Your task to perform on an android device: Clear the shopping cart on bestbuy.com. Add "macbook pro" to the cart on bestbuy.com, then select checkout. Image 0: 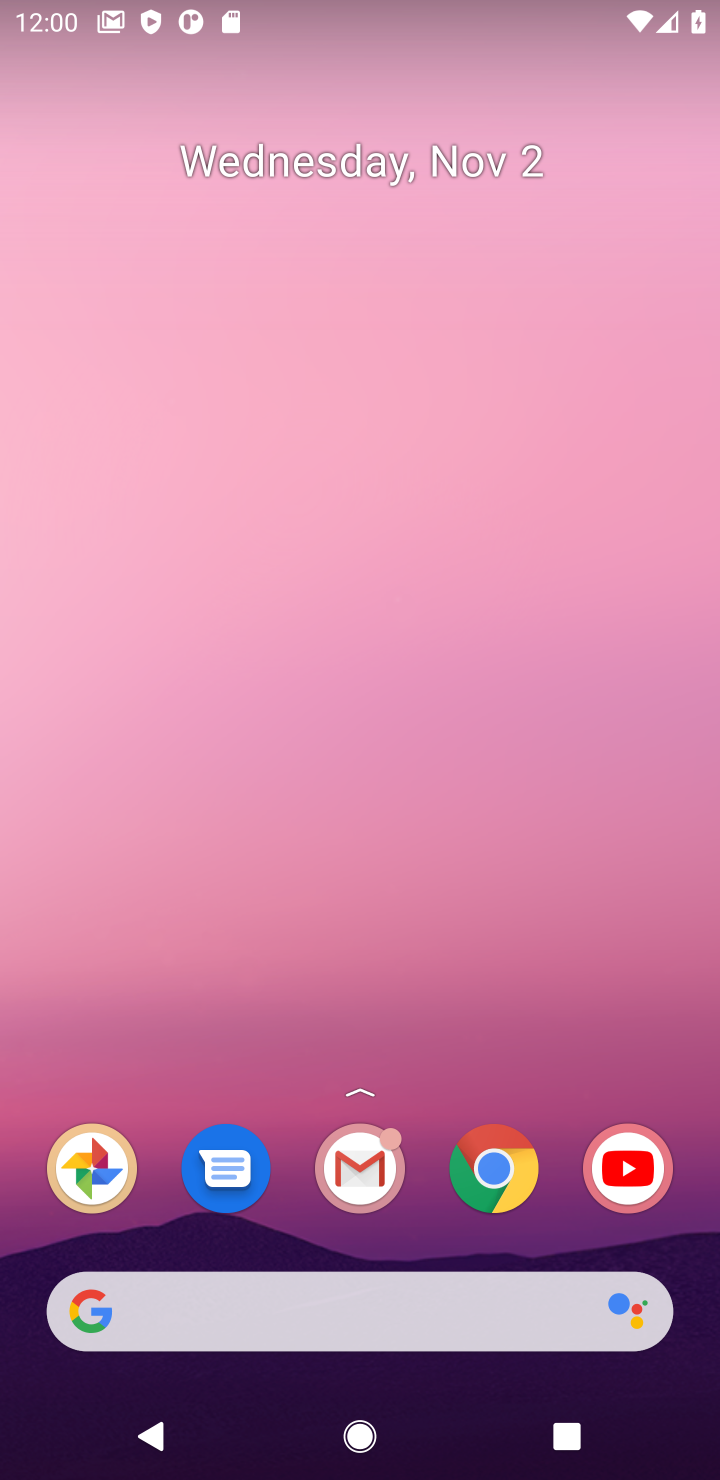
Step 0: click (490, 1166)
Your task to perform on an android device: Clear the shopping cart on bestbuy.com. Add "macbook pro" to the cart on bestbuy.com, then select checkout. Image 1: 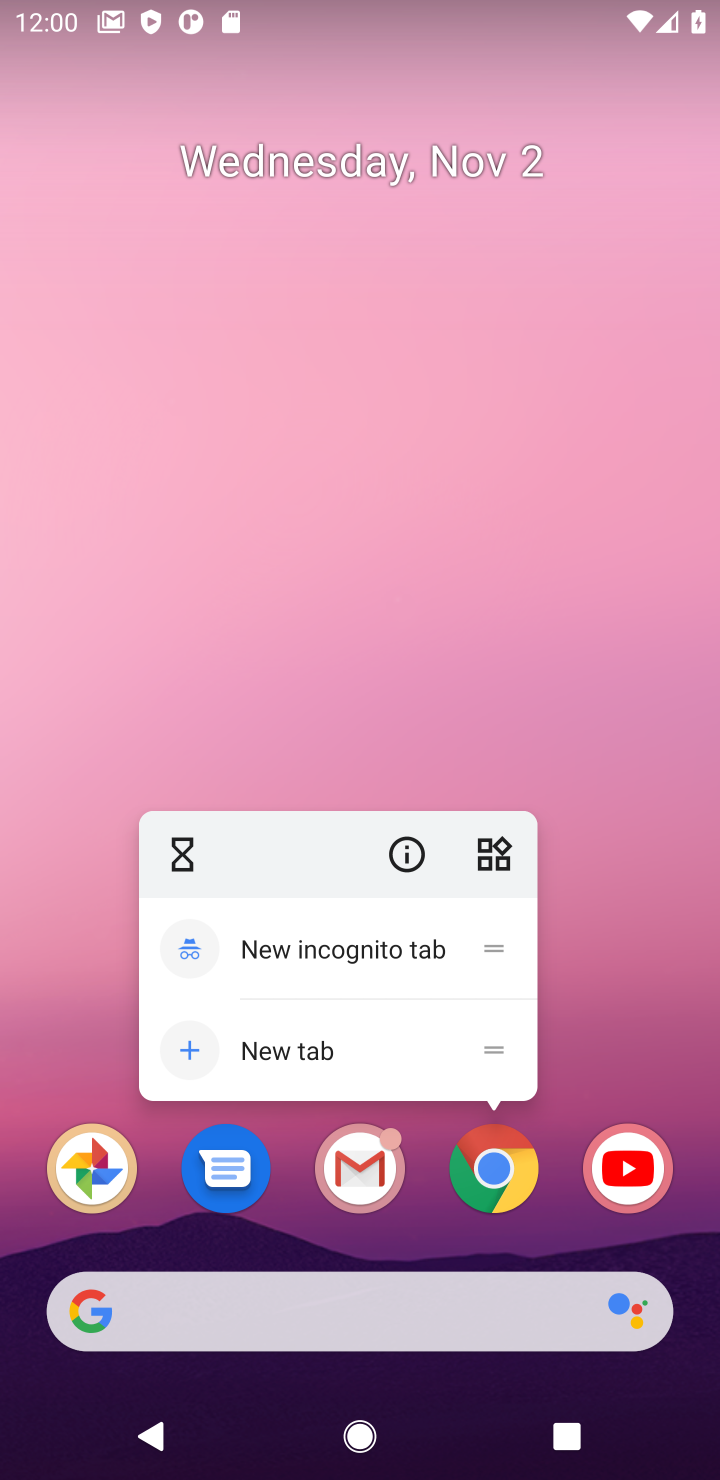
Step 1: click (685, 959)
Your task to perform on an android device: Clear the shopping cart on bestbuy.com. Add "macbook pro" to the cart on bestbuy.com, then select checkout. Image 2: 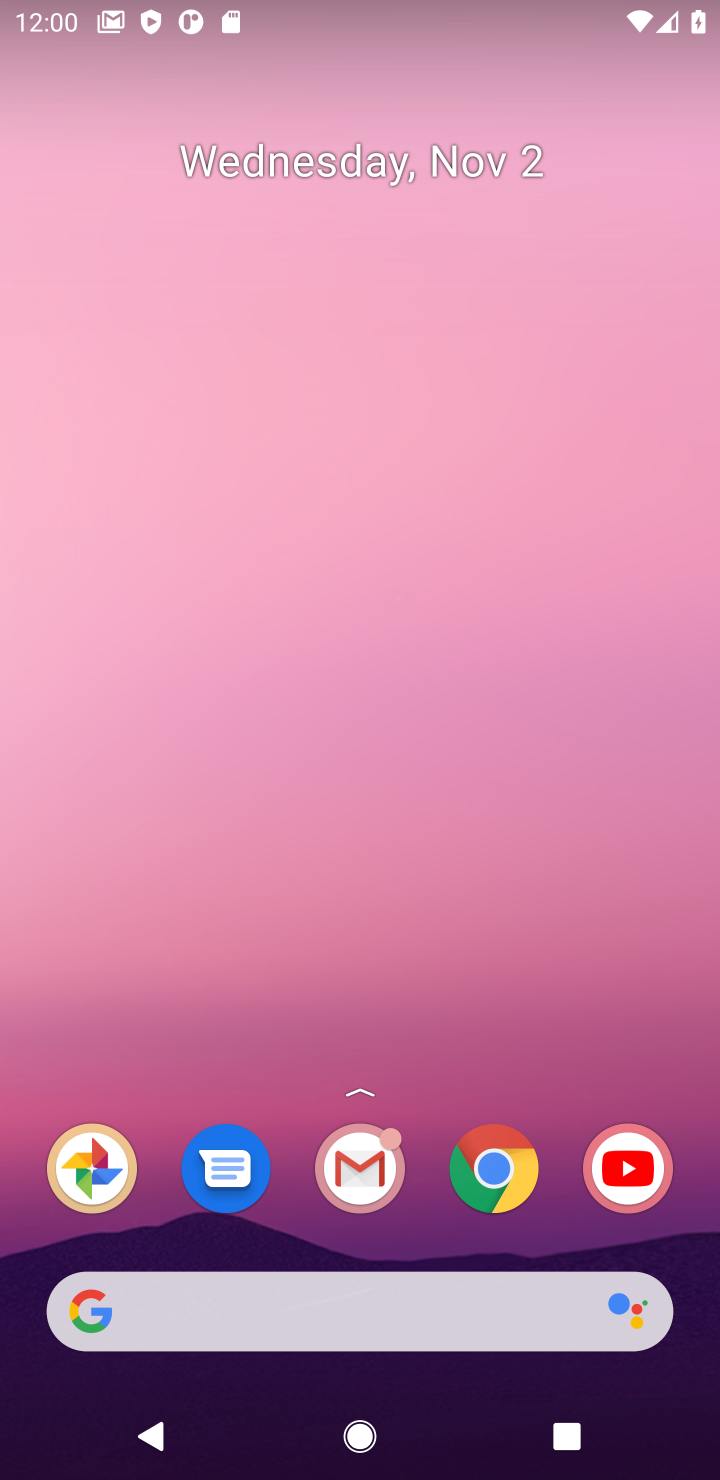
Step 2: click (502, 1170)
Your task to perform on an android device: Clear the shopping cart on bestbuy.com. Add "macbook pro" to the cart on bestbuy.com, then select checkout. Image 3: 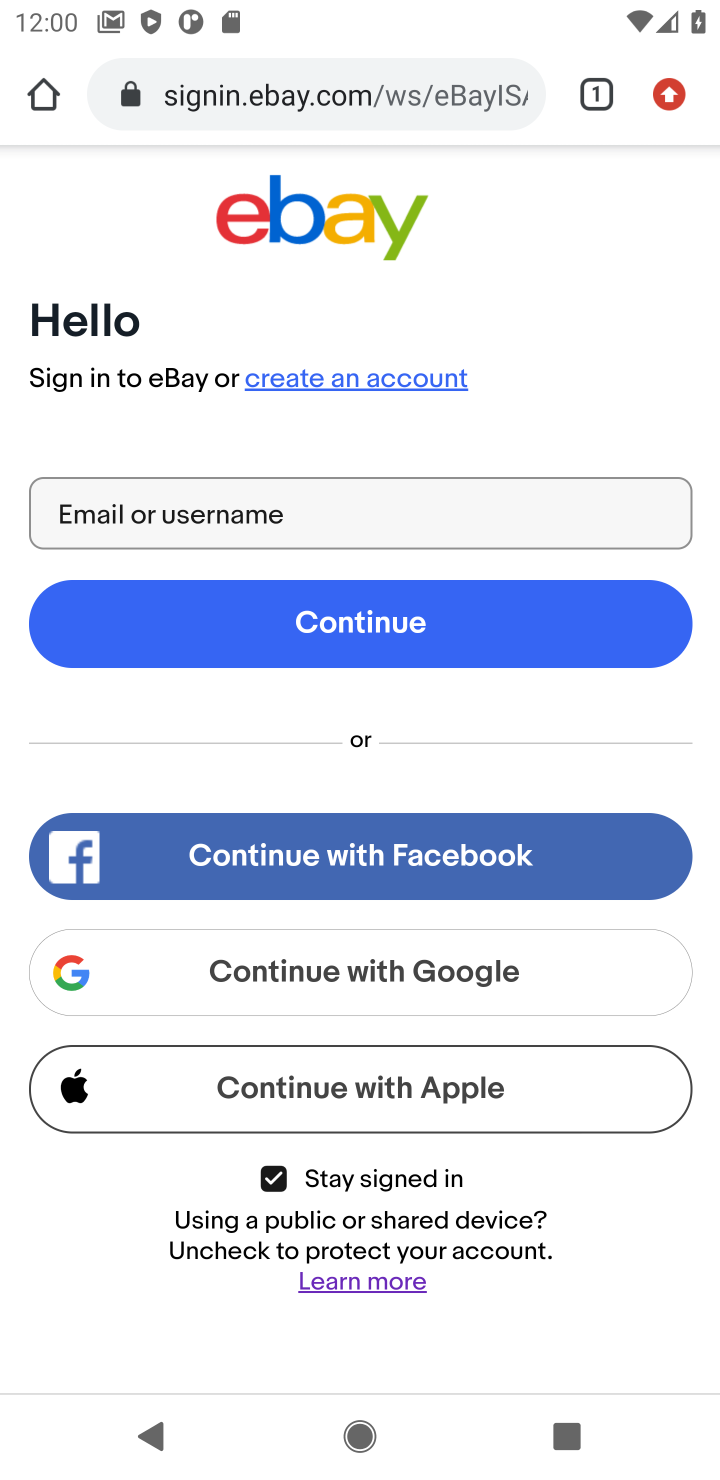
Step 3: click (443, 78)
Your task to perform on an android device: Clear the shopping cart on bestbuy.com. Add "macbook pro" to the cart on bestbuy.com, then select checkout. Image 4: 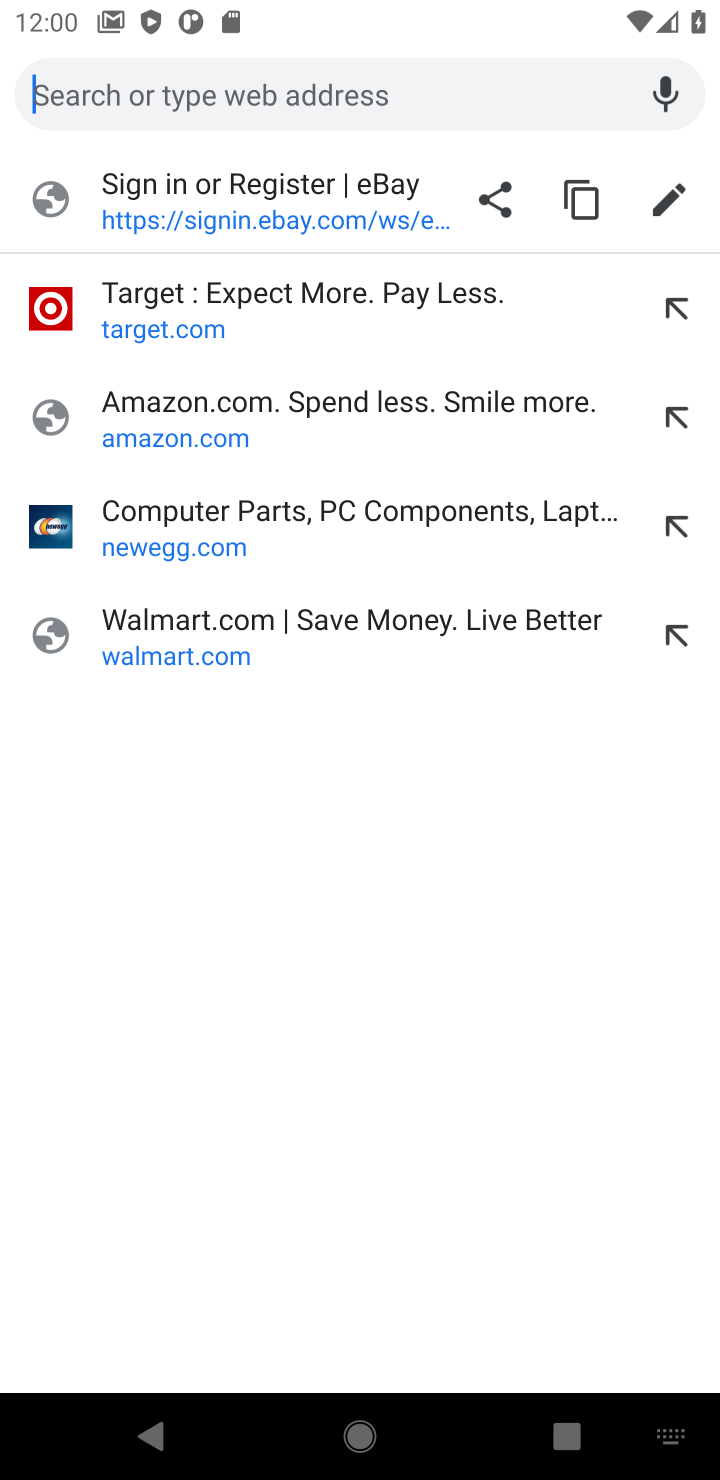
Step 4: press enter
Your task to perform on an android device: Clear the shopping cart on bestbuy.com. Add "macbook pro" to the cart on bestbuy.com, then select checkout. Image 5: 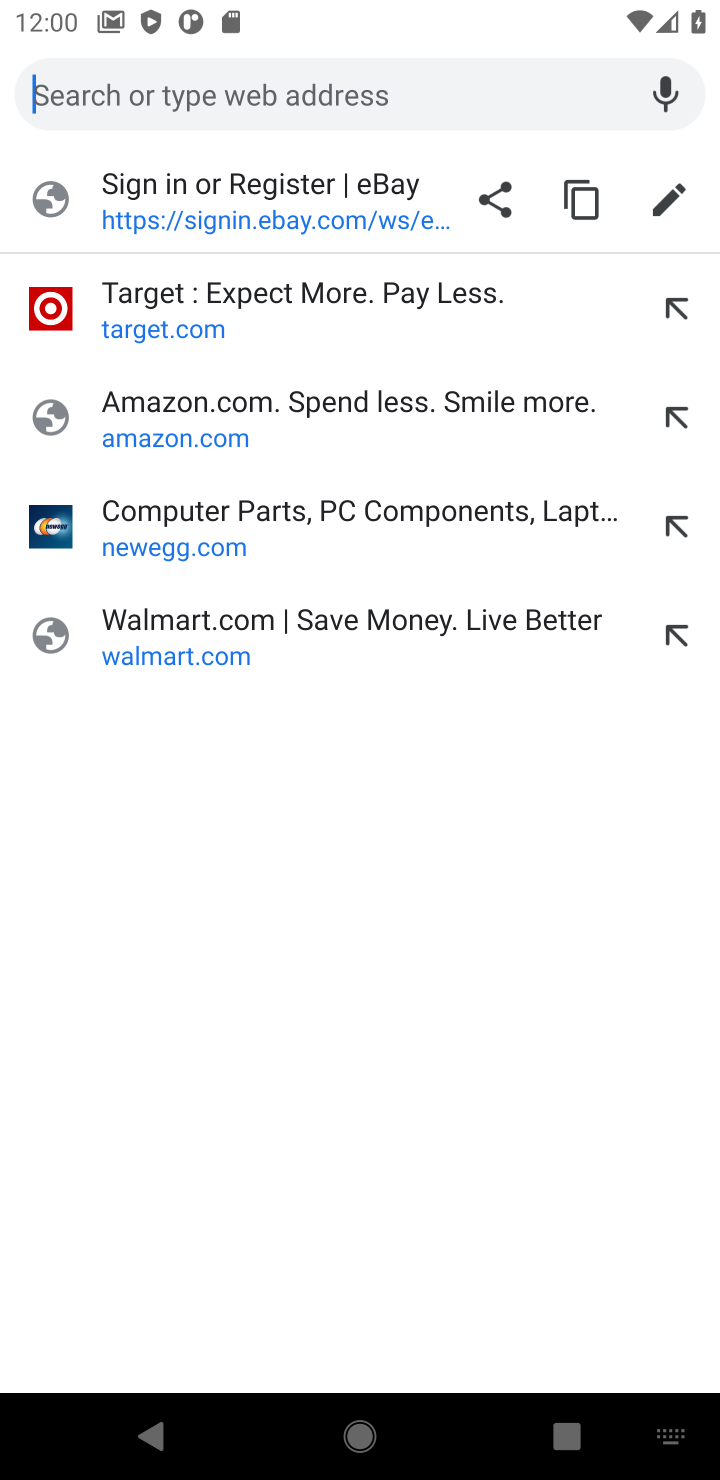
Step 5: type "bestbuy.com"
Your task to perform on an android device: Clear the shopping cart on bestbuy.com. Add "macbook pro" to the cart on bestbuy.com, then select checkout. Image 6: 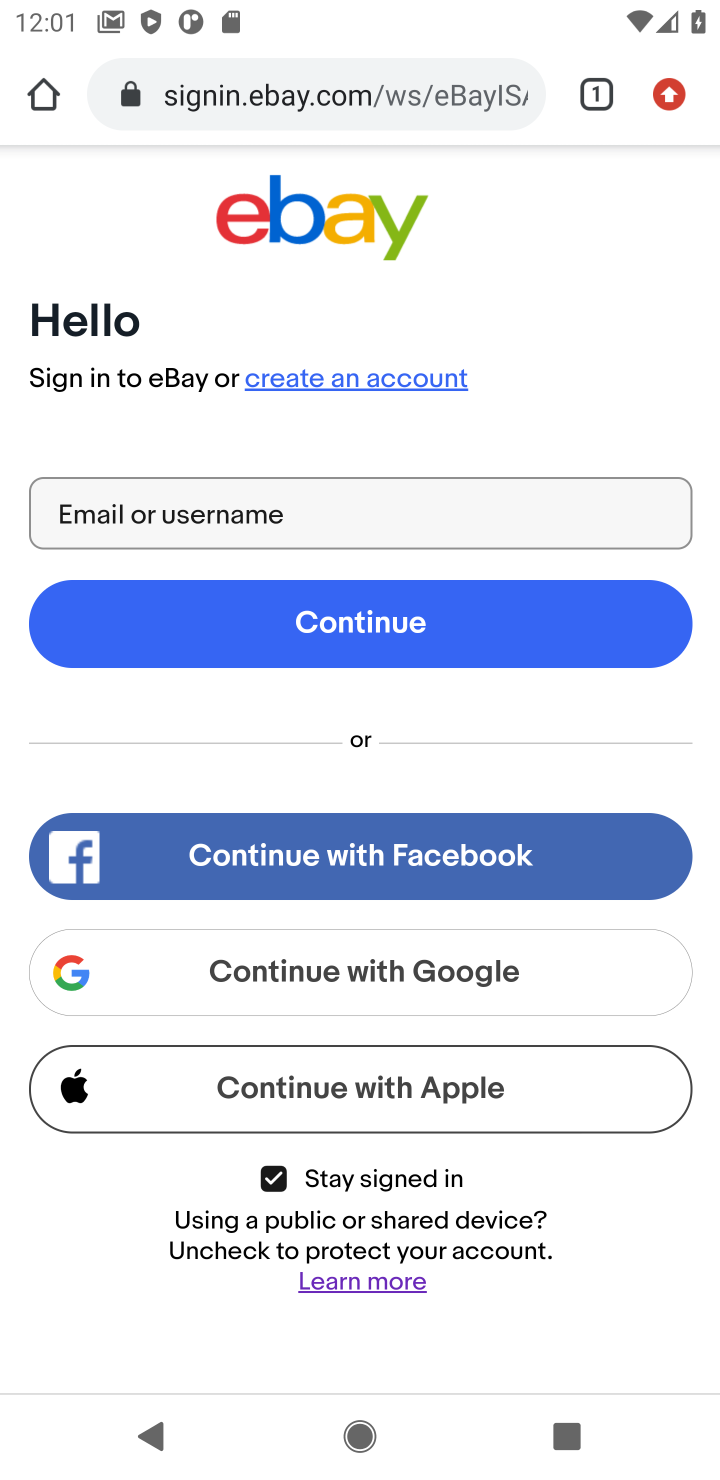
Step 6: click (399, 97)
Your task to perform on an android device: Clear the shopping cart on bestbuy.com. Add "macbook pro" to the cart on bestbuy.com, then select checkout. Image 7: 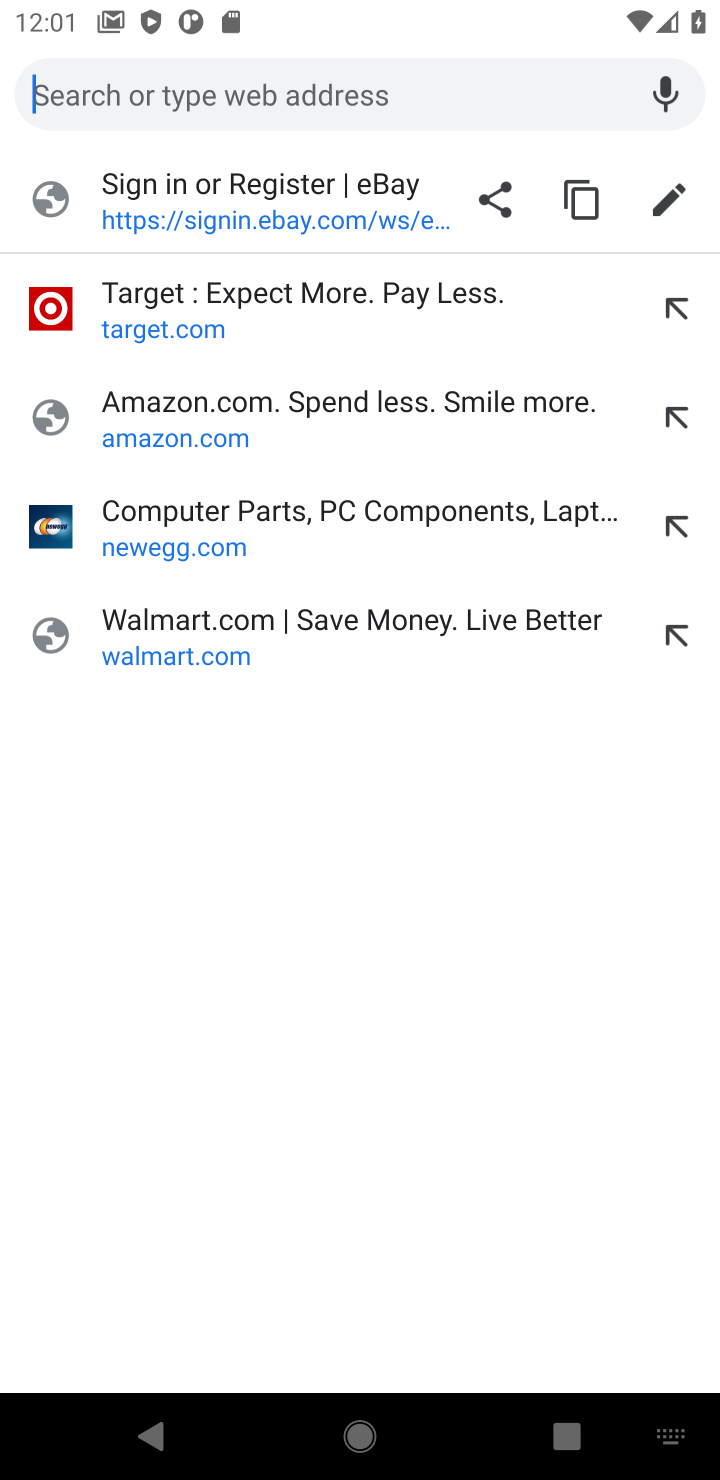
Step 7: type "bestbuy.com"
Your task to perform on an android device: Clear the shopping cart on bestbuy.com. Add "macbook pro" to the cart on bestbuy.com, then select checkout. Image 8: 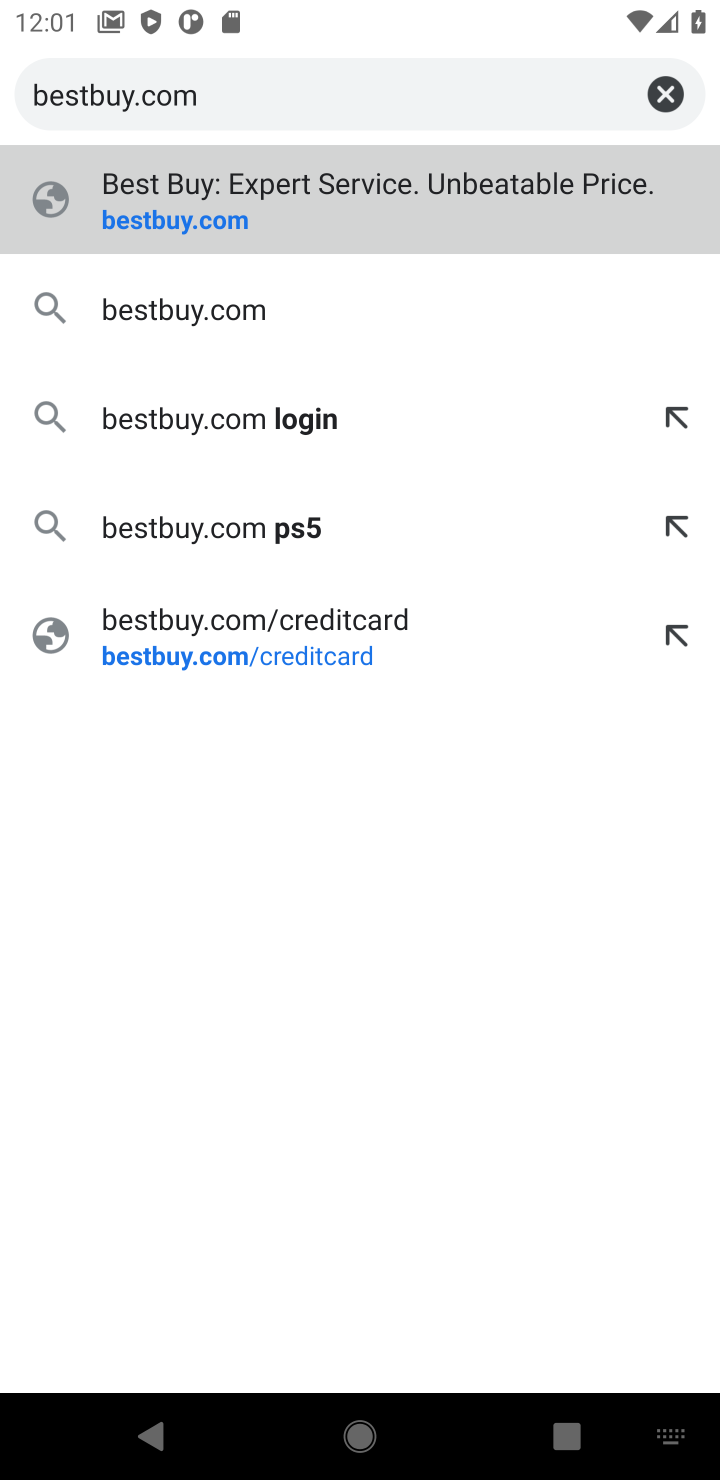
Step 8: press enter
Your task to perform on an android device: Clear the shopping cart on bestbuy.com. Add "macbook pro" to the cart on bestbuy.com, then select checkout. Image 9: 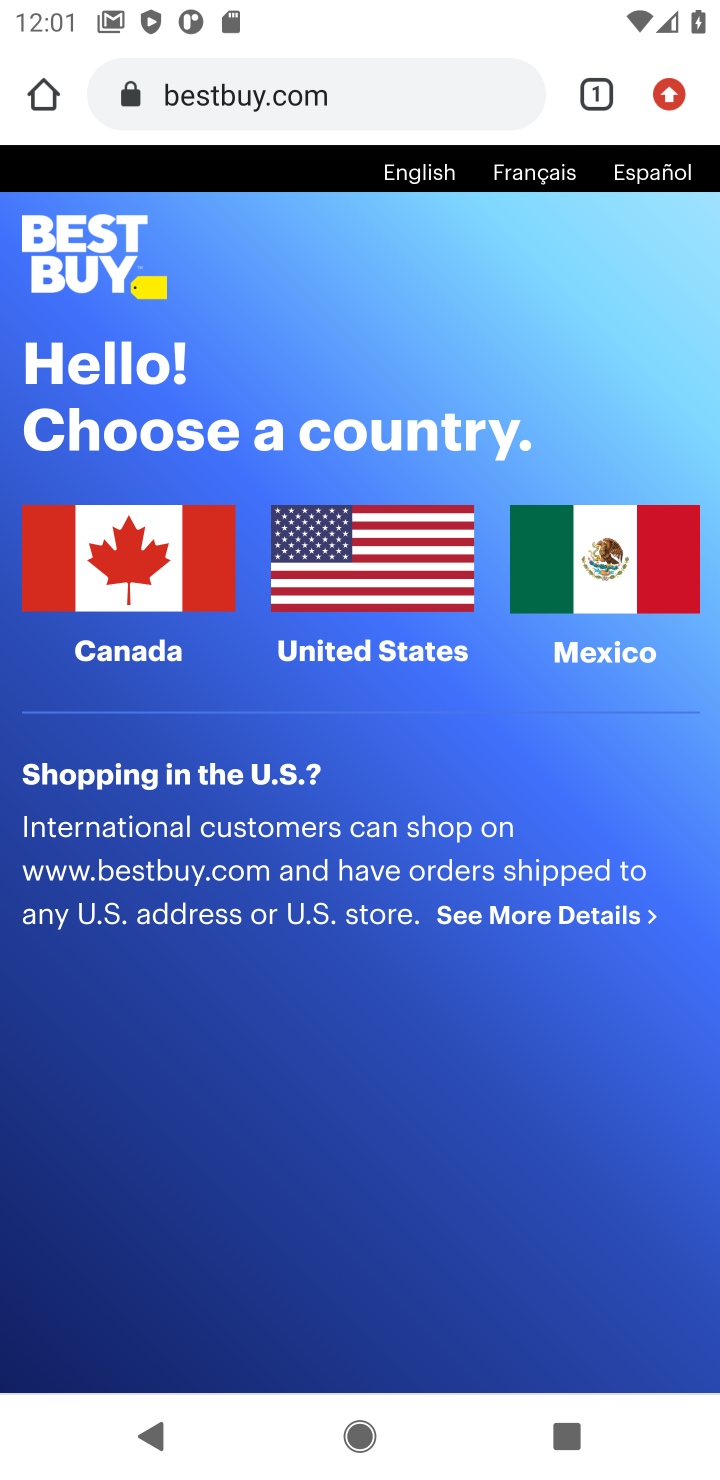
Step 9: click (394, 538)
Your task to perform on an android device: Clear the shopping cart on bestbuy.com. Add "macbook pro" to the cart on bestbuy.com, then select checkout. Image 10: 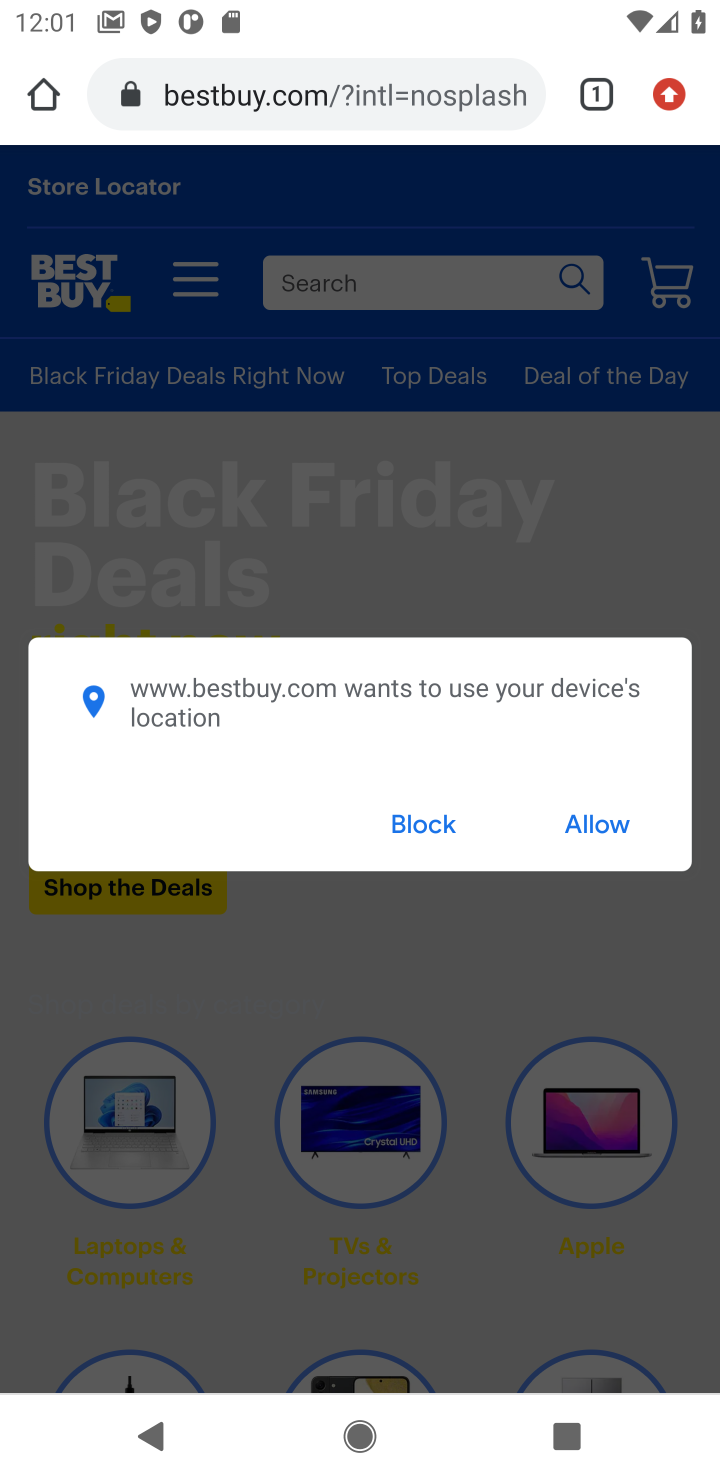
Step 10: click (445, 819)
Your task to perform on an android device: Clear the shopping cart on bestbuy.com. Add "macbook pro" to the cart on bestbuy.com, then select checkout. Image 11: 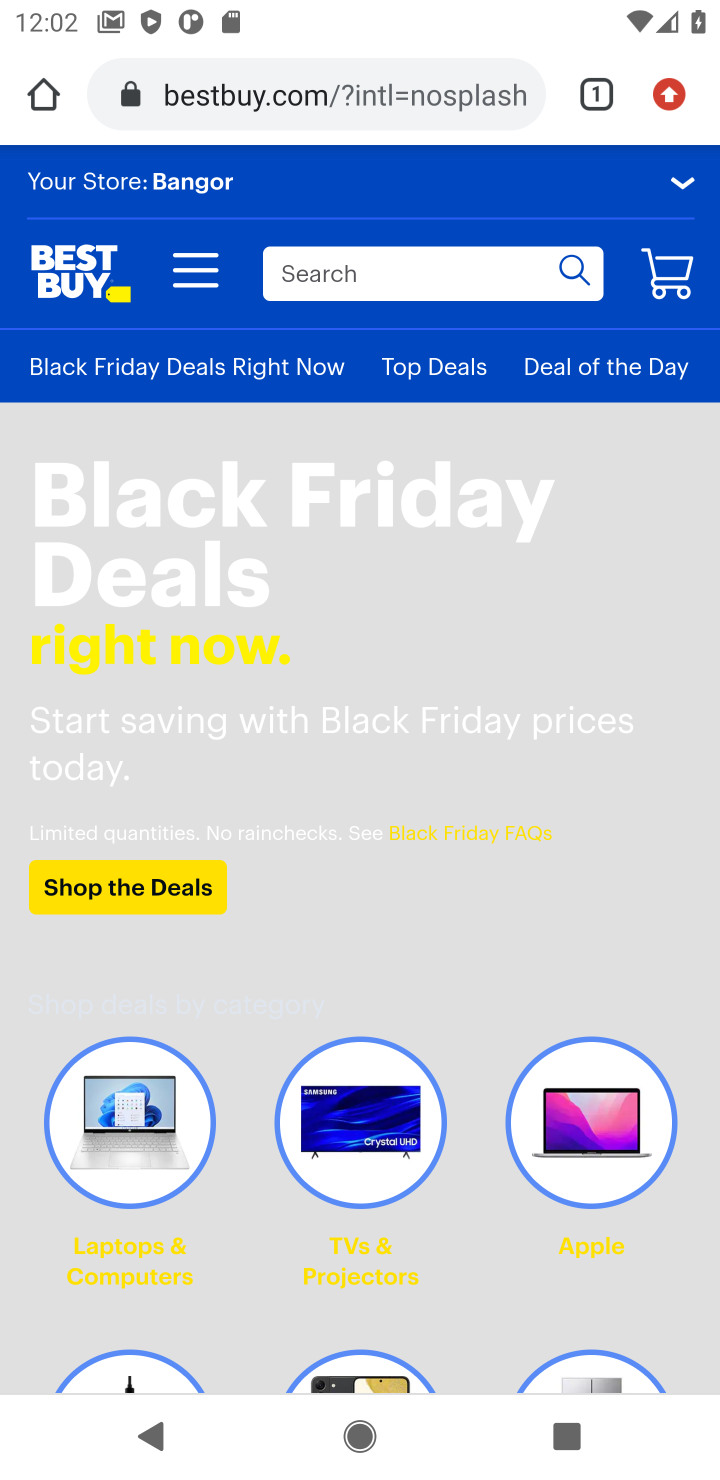
Step 11: click (662, 260)
Your task to perform on an android device: Clear the shopping cart on bestbuy.com. Add "macbook pro" to the cart on bestbuy.com, then select checkout. Image 12: 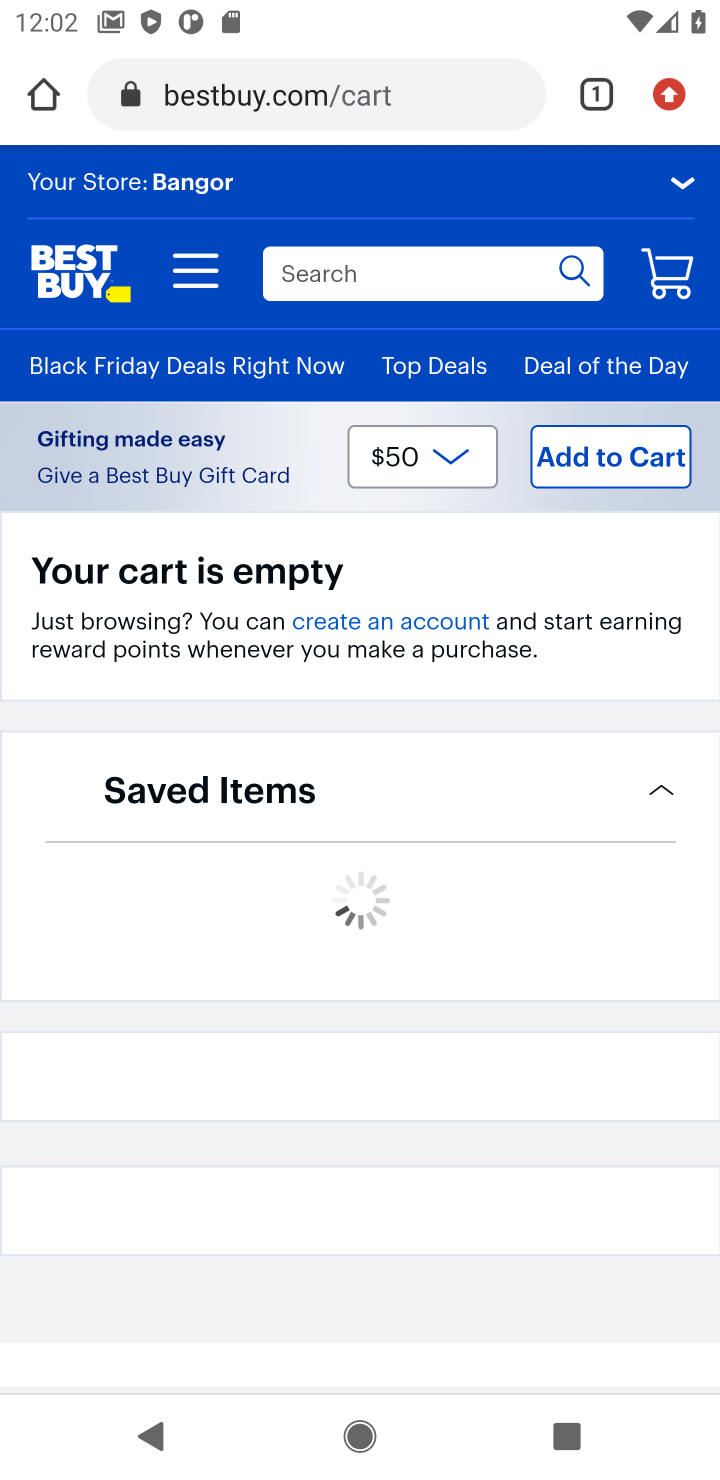
Step 12: click (413, 275)
Your task to perform on an android device: Clear the shopping cart on bestbuy.com. Add "macbook pro" to the cart on bestbuy.com, then select checkout. Image 13: 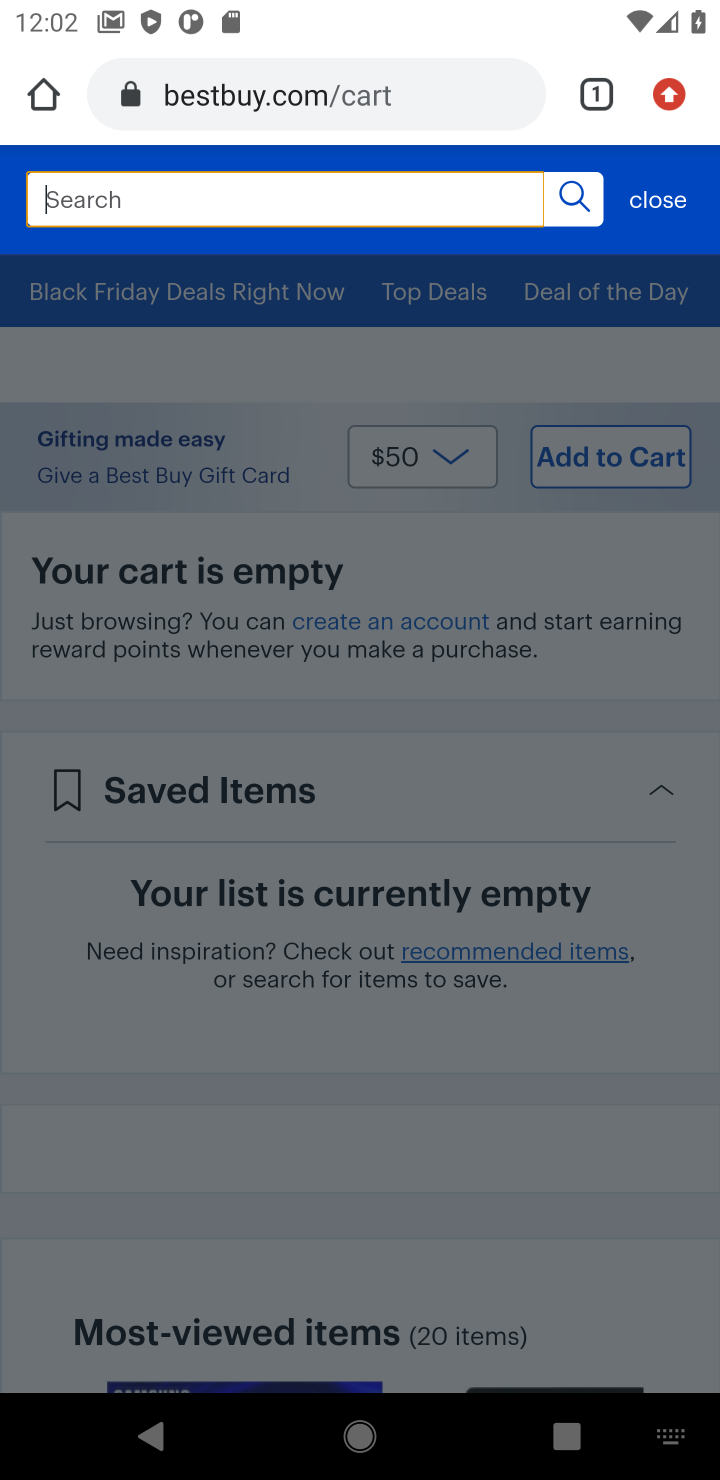
Step 13: type "macbook pro"
Your task to perform on an android device: Clear the shopping cart on bestbuy.com. Add "macbook pro" to the cart on bestbuy.com, then select checkout. Image 14: 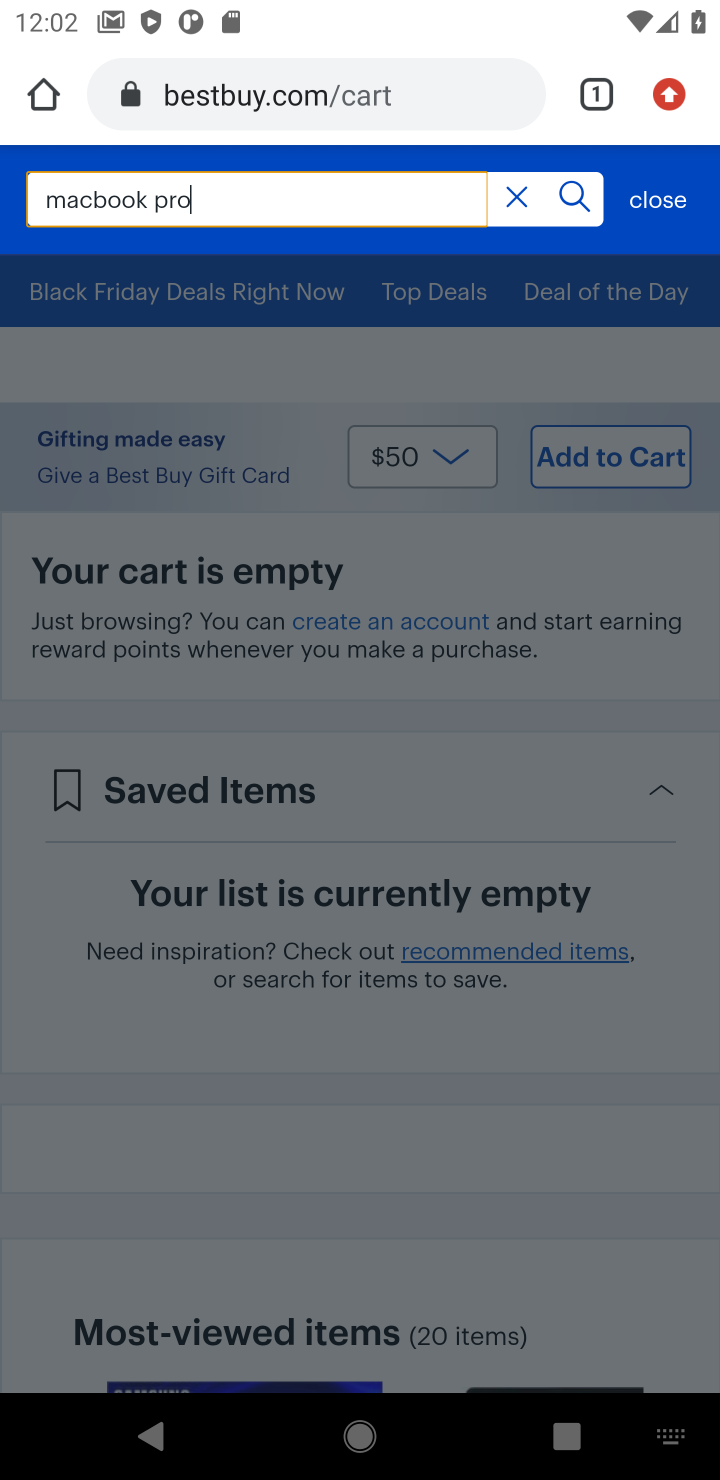
Step 14: press enter
Your task to perform on an android device: Clear the shopping cart on bestbuy.com. Add "macbook pro" to the cart on bestbuy.com, then select checkout. Image 15: 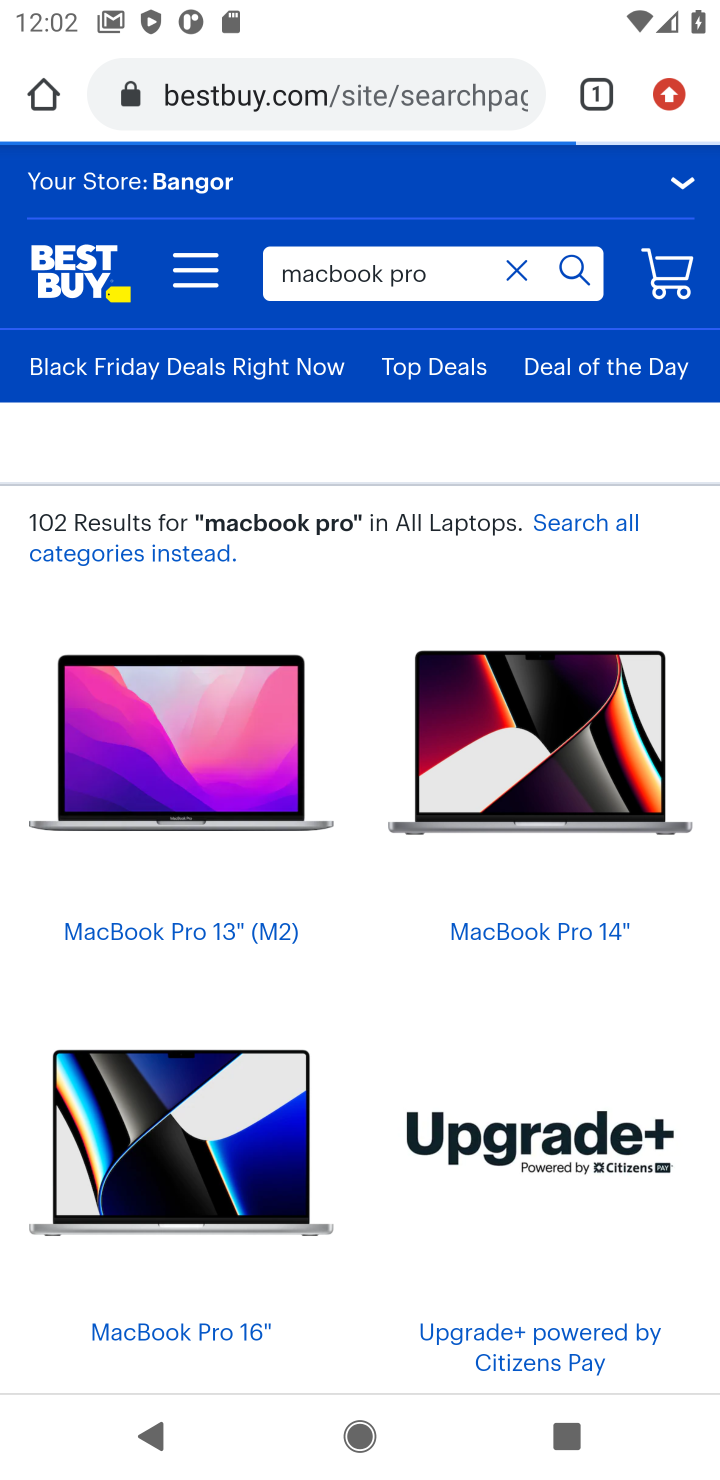
Step 15: click (197, 753)
Your task to perform on an android device: Clear the shopping cart on bestbuy.com. Add "macbook pro" to the cart on bestbuy.com, then select checkout. Image 16: 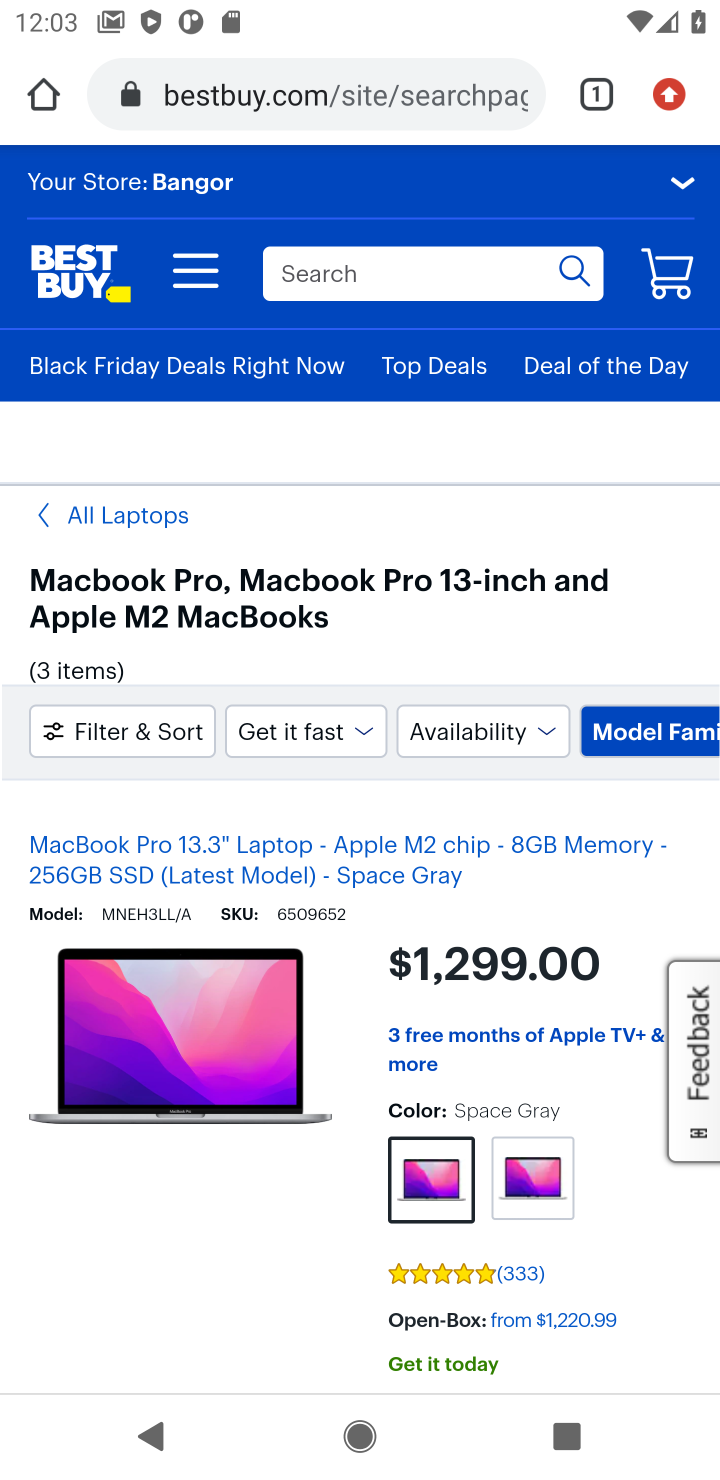
Step 16: drag from (459, 786) to (482, 419)
Your task to perform on an android device: Clear the shopping cart on bestbuy.com. Add "macbook pro" to the cart on bestbuy.com, then select checkout. Image 17: 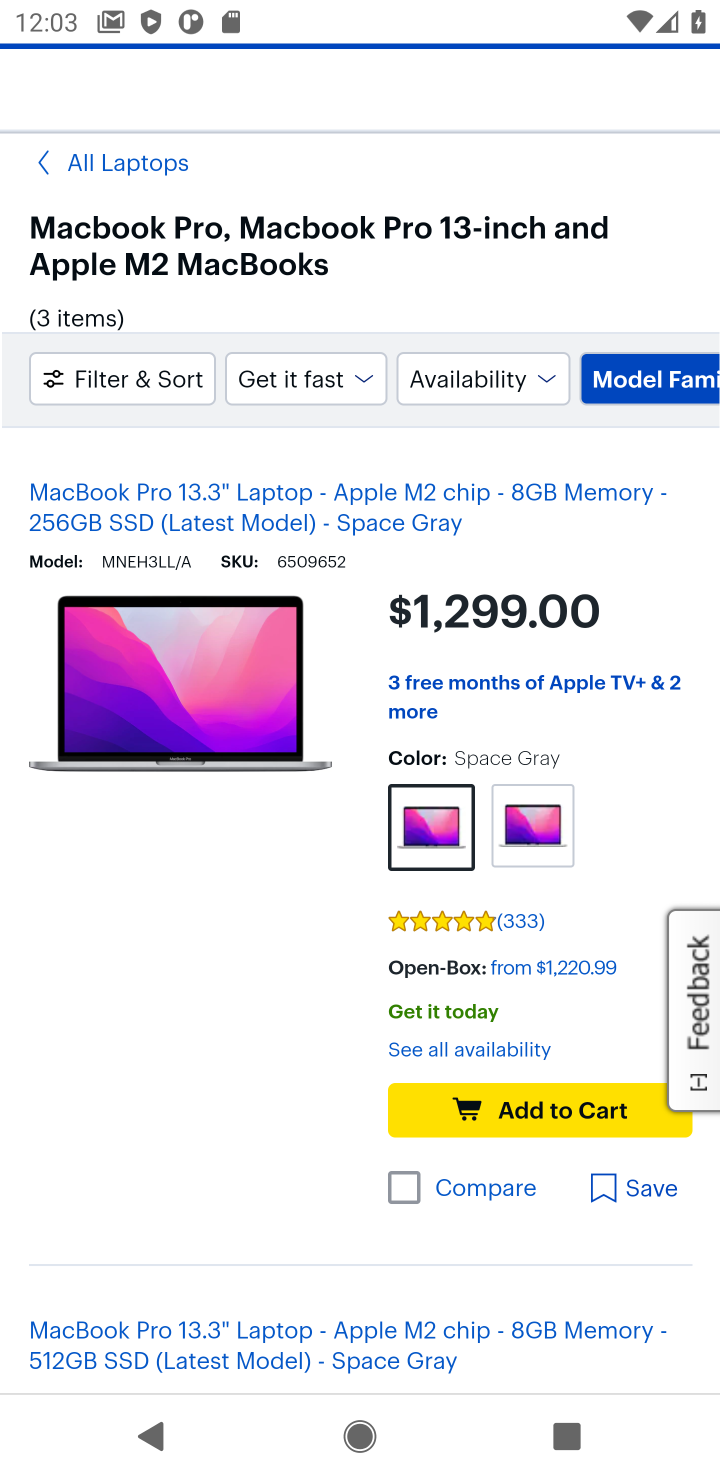
Step 17: click (580, 1109)
Your task to perform on an android device: Clear the shopping cart on bestbuy.com. Add "macbook pro" to the cart on bestbuy.com, then select checkout. Image 18: 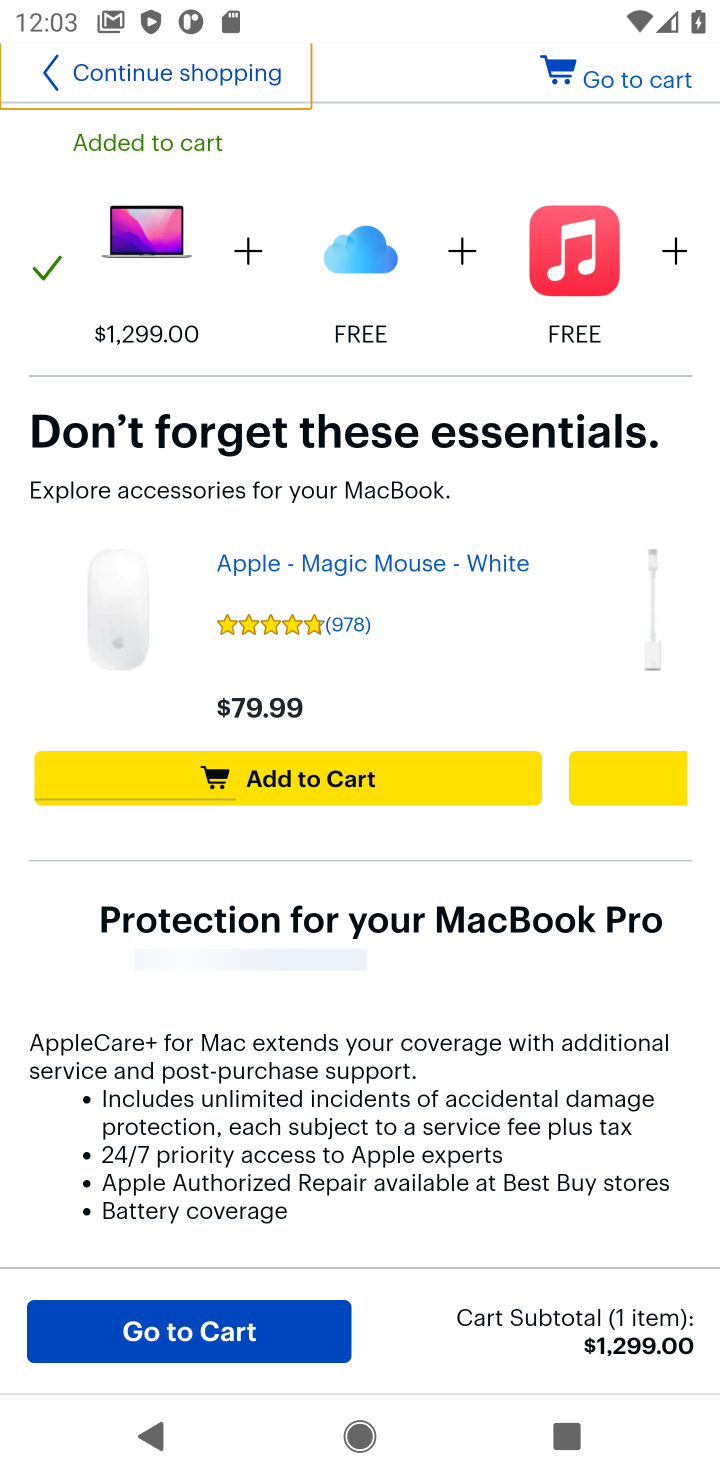
Step 18: click (189, 1333)
Your task to perform on an android device: Clear the shopping cart on bestbuy.com. Add "macbook pro" to the cart on bestbuy.com, then select checkout. Image 19: 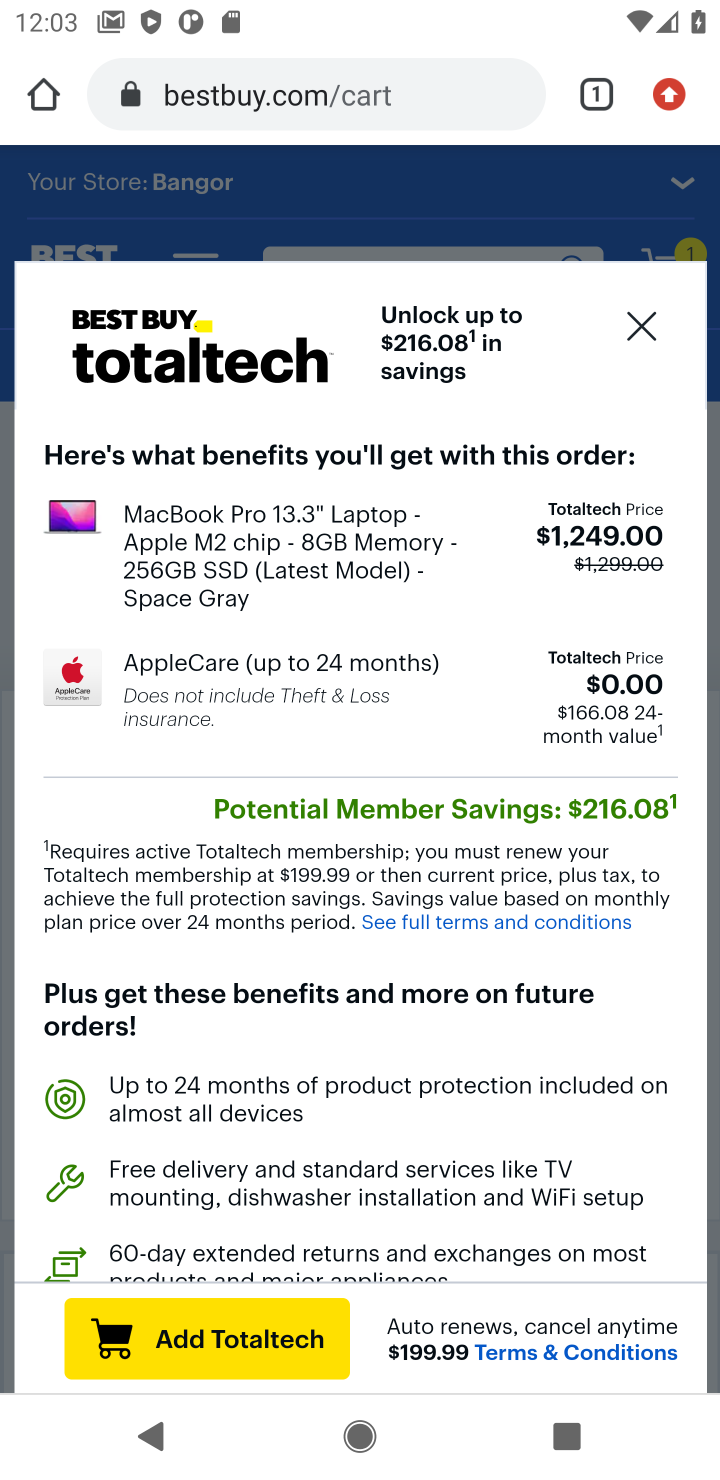
Step 19: click (649, 326)
Your task to perform on an android device: Clear the shopping cart on bestbuy.com. Add "macbook pro" to the cart on bestbuy.com, then select checkout. Image 20: 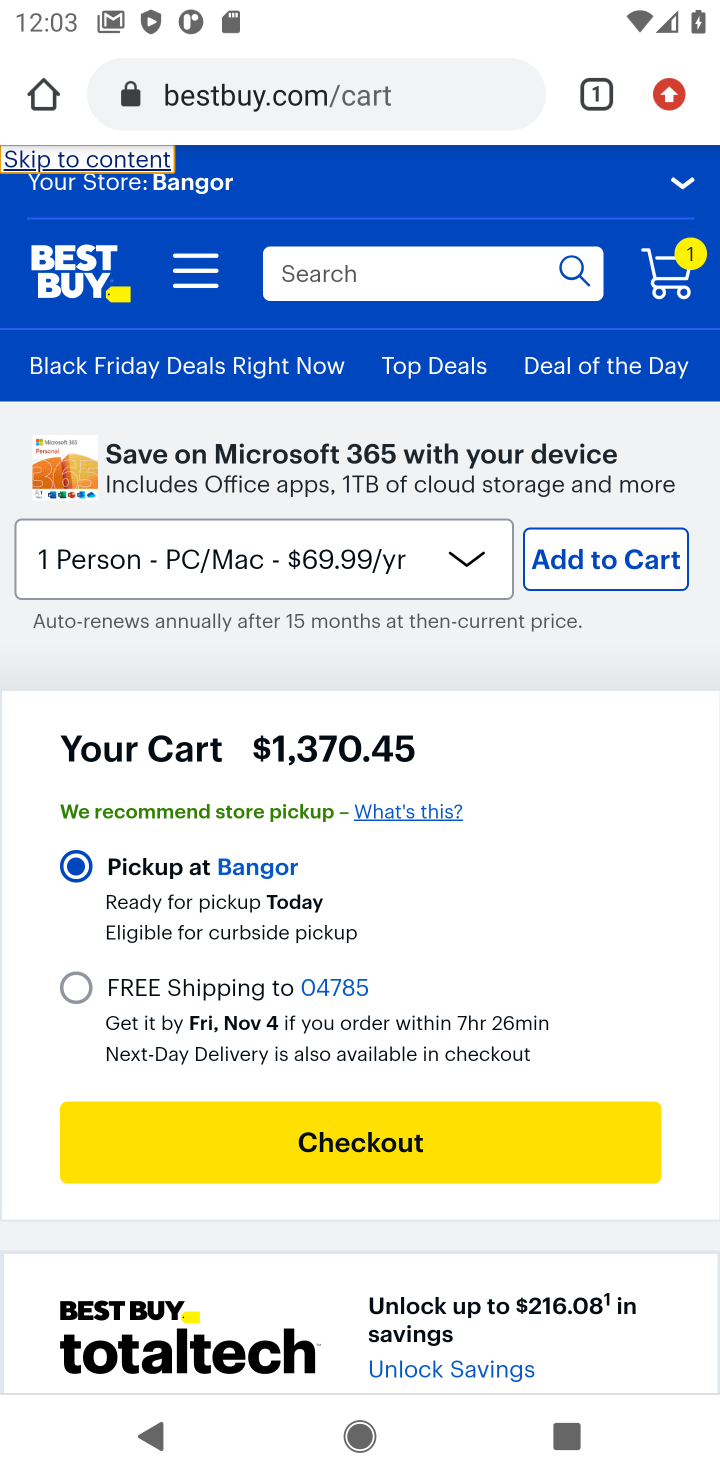
Step 20: click (441, 1126)
Your task to perform on an android device: Clear the shopping cart on bestbuy.com. Add "macbook pro" to the cart on bestbuy.com, then select checkout. Image 21: 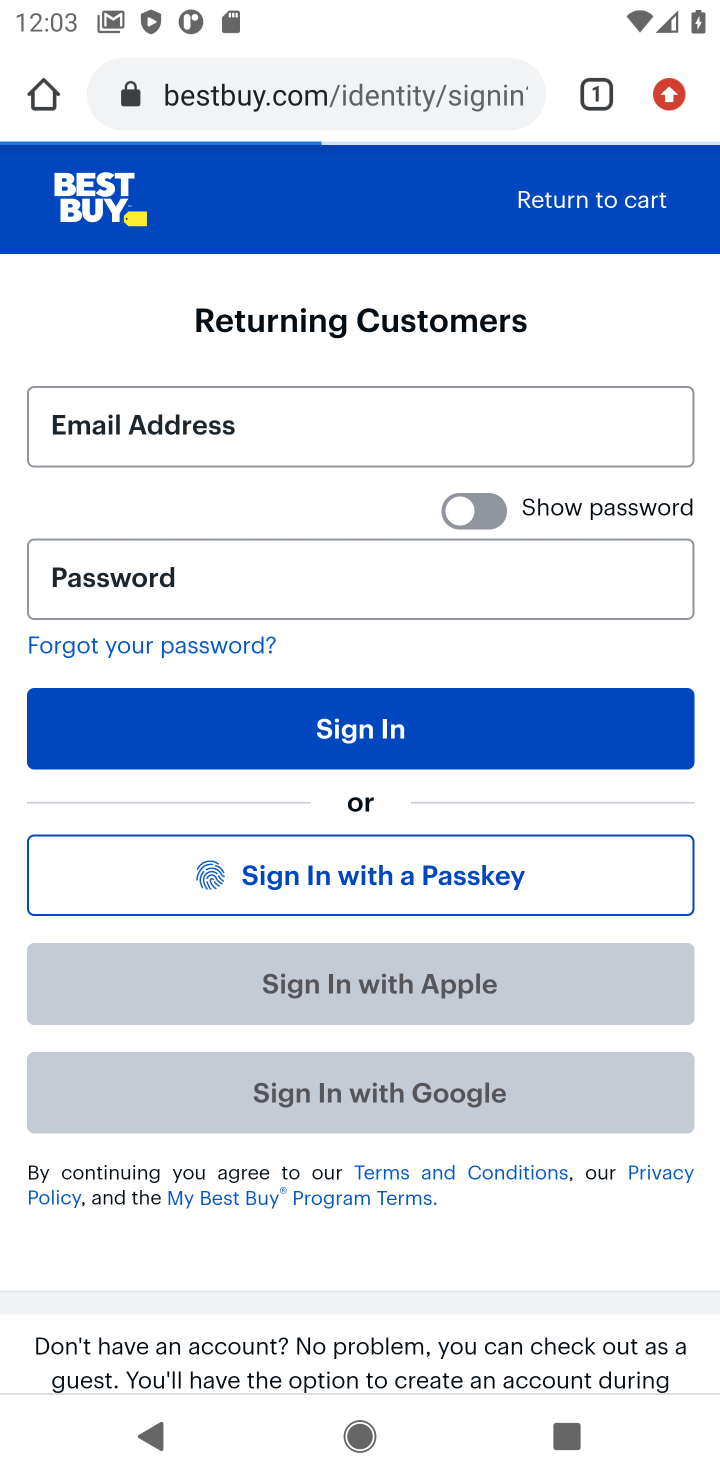
Step 21: task complete